Your task to perform on an android device: Open the calendar and show me this week's events? Image 0: 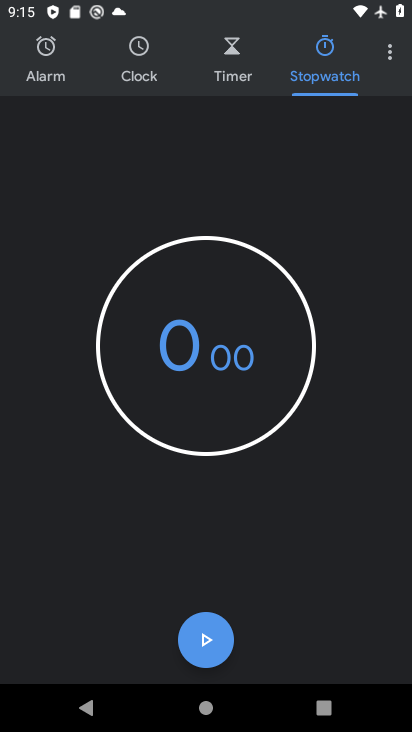
Step 0: press home button
Your task to perform on an android device: Open the calendar and show me this week's events? Image 1: 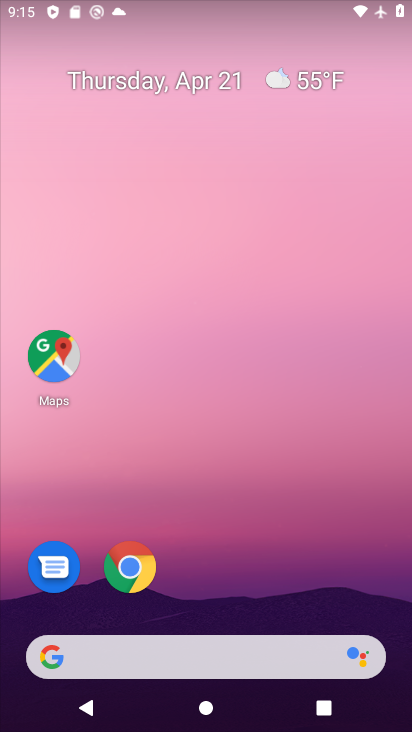
Step 1: drag from (346, 602) to (276, 108)
Your task to perform on an android device: Open the calendar and show me this week's events? Image 2: 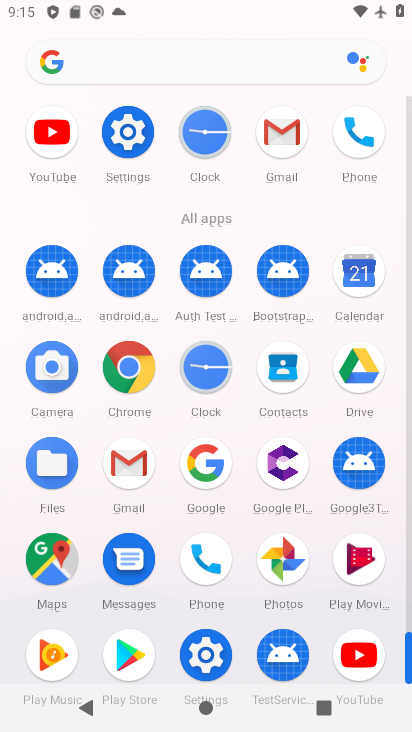
Step 2: click (359, 268)
Your task to perform on an android device: Open the calendar and show me this week's events? Image 3: 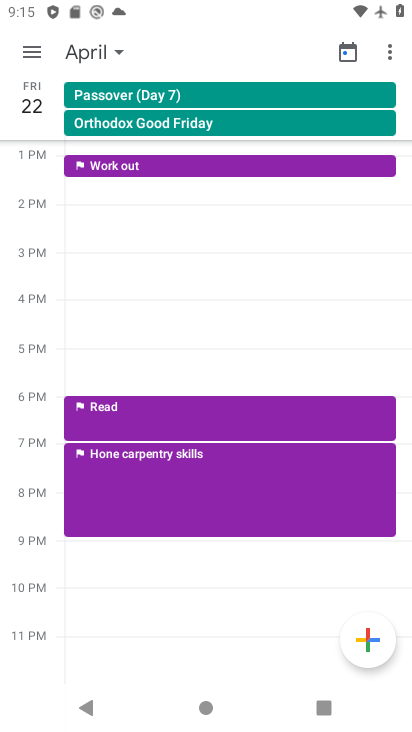
Step 3: click (27, 50)
Your task to perform on an android device: Open the calendar and show me this week's events? Image 4: 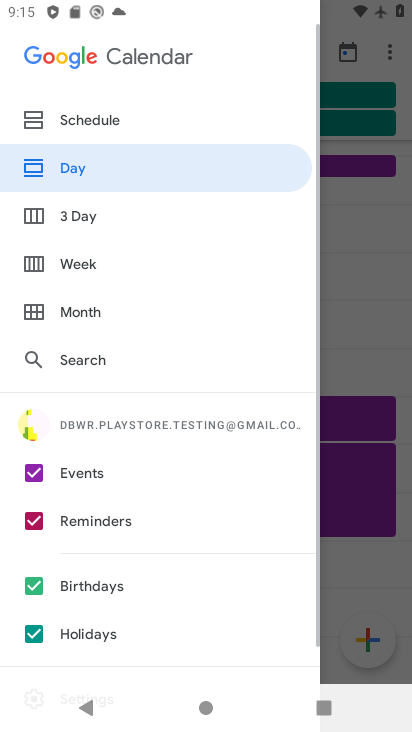
Step 4: click (77, 260)
Your task to perform on an android device: Open the calendar and show me this week's events? Image 5: 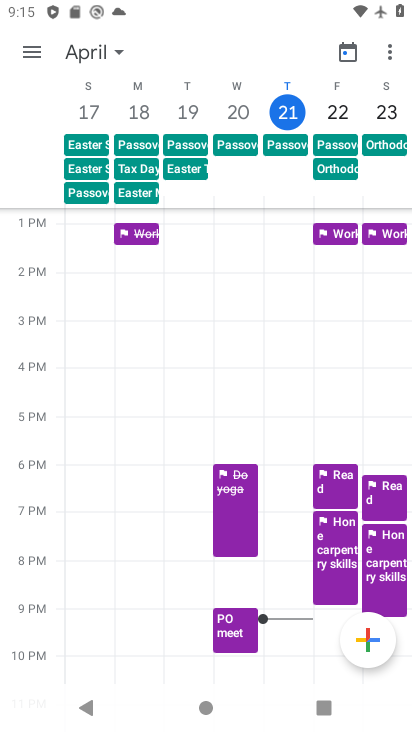
Step 5: task complete